Your task to perform on an android device: add a contact in the contacts app Image 0: 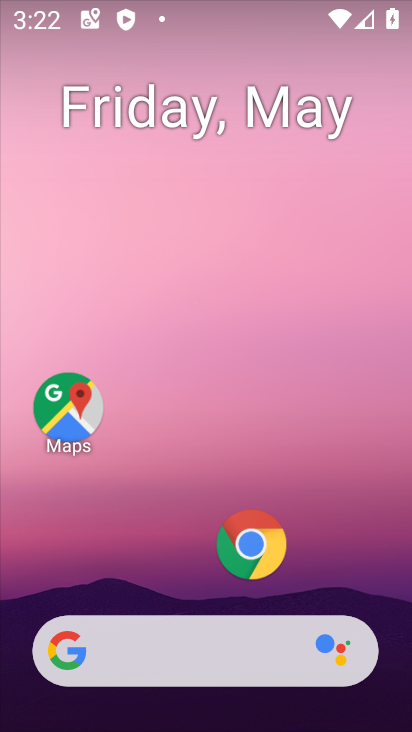
Step 0: drag from (182, 590) to (200, 247)
Your task to perform on an android device: add a contact in the contacts app Image 1: 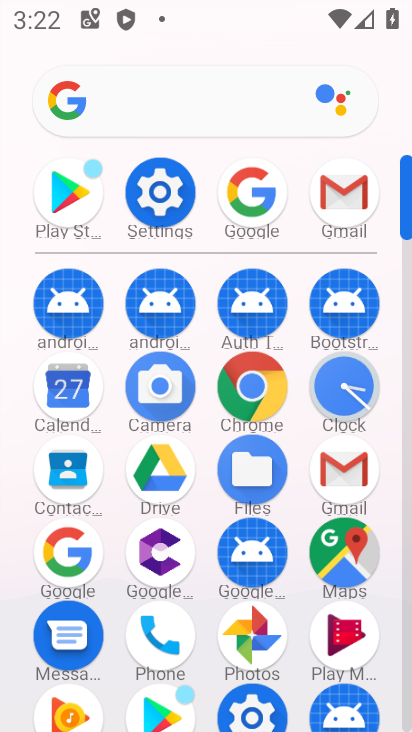
Step 1: click (73, 470)
Your task to perform on an android device: add a contact in the contacts app Image 2: 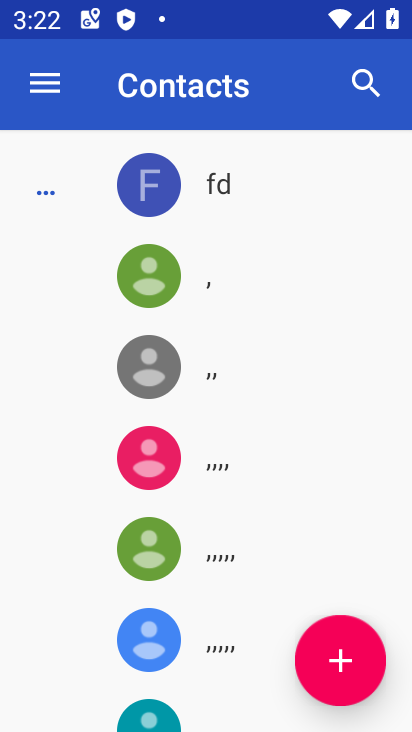
Step 2: click (338, 646)
Your task to perform on an android device: add a contact in the contacts app Image 3: 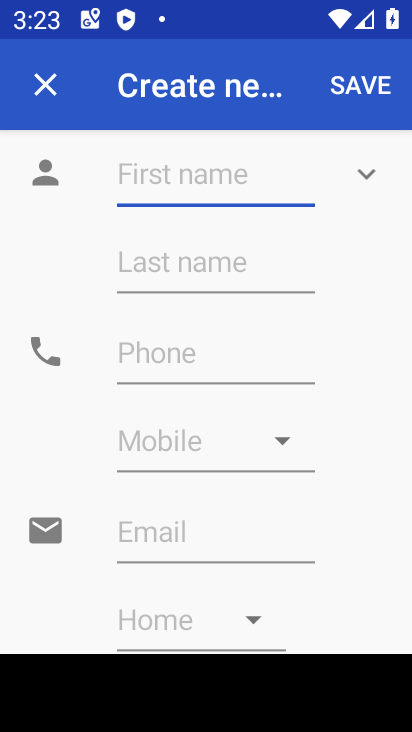
Step 3: type "hgfjgf"
Your task to perform on an android device: add a contact in the contacts app Image 4: 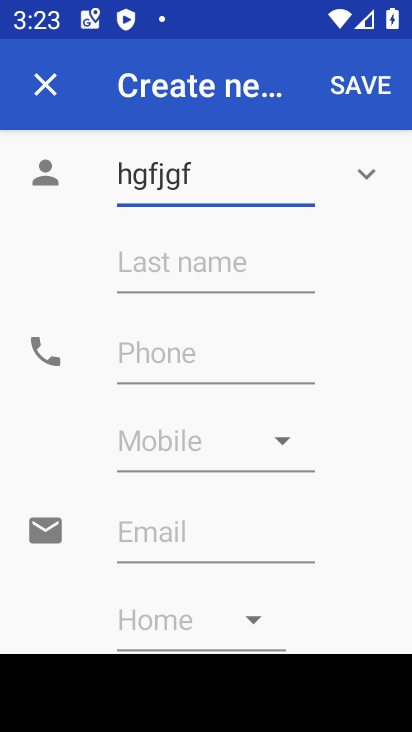
Step 4: click (198, 347)
Your task to perform on an android device: add a contact in the contacts app Image 5: 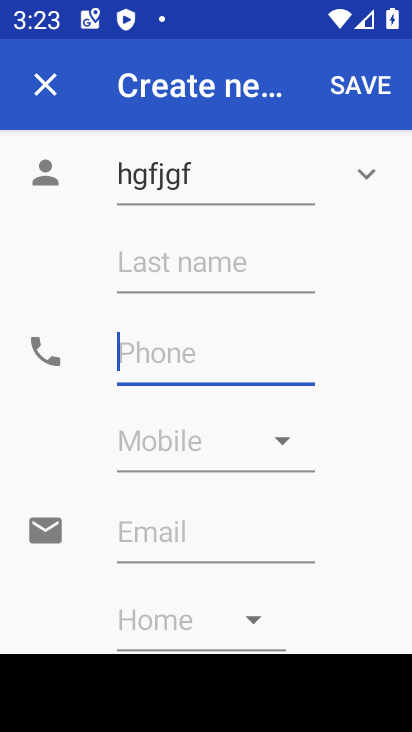
Step 5: type "67865868"
Your task to perform on an android device: add a contact in the contacts app Image 6: 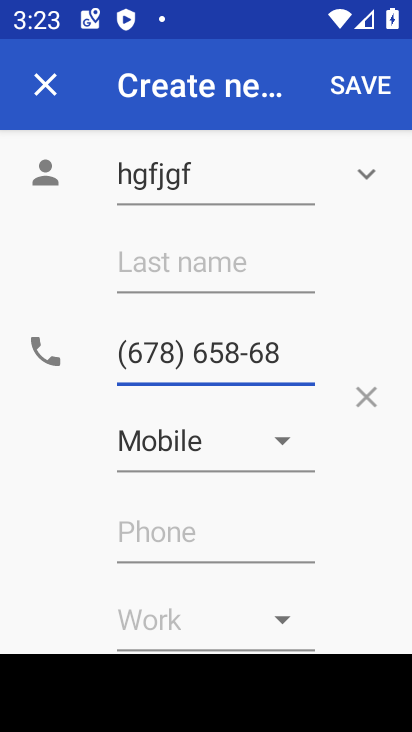
Step 6: click (359, 93)
Your task to perform on an android device: add a contact in the contacts app Image 7: 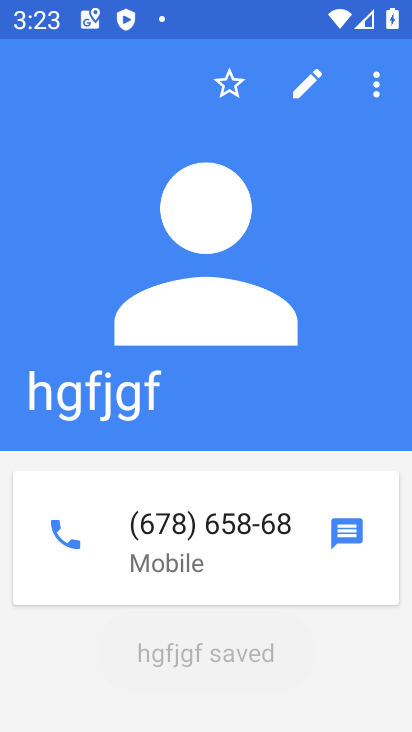
Step 7: task complete